Your task to perform on an android device: What is the news today? Image 0: 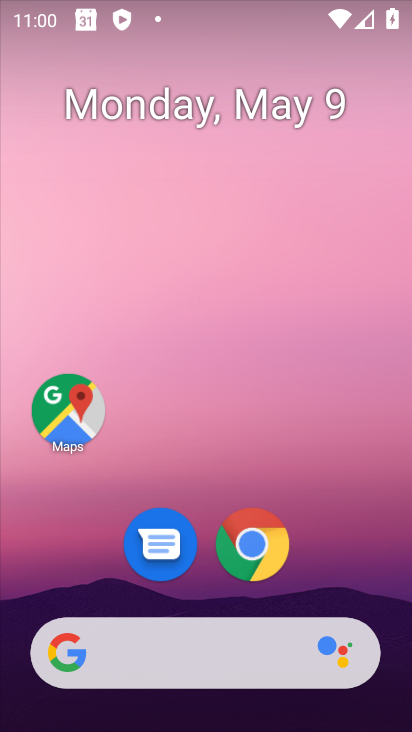
Step 0: press home button
Your task to perform on an android device: What is the news today? Image 1: 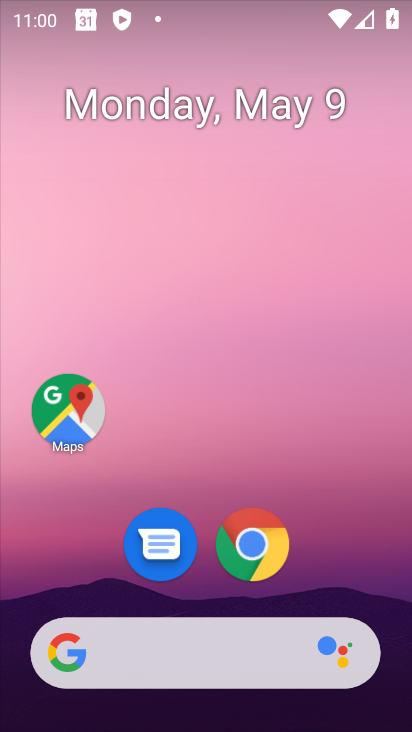
Step 1: click (132, 654)
Your task to perform on an android device: What is the news today? Image 2: 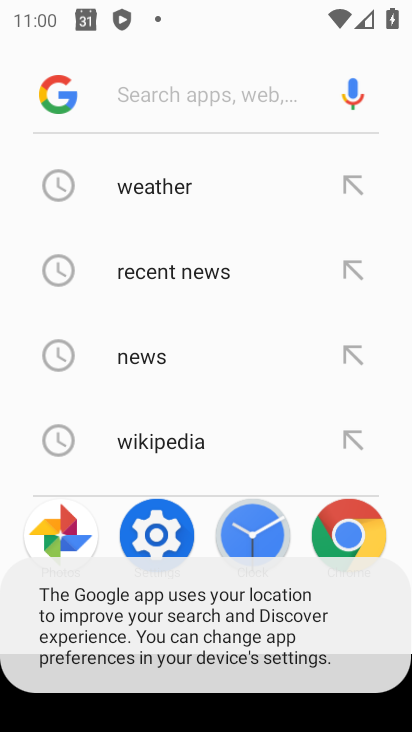
Step 2: click (153, 348)
Your task to perform on an android device: What is the news today? Image 3: 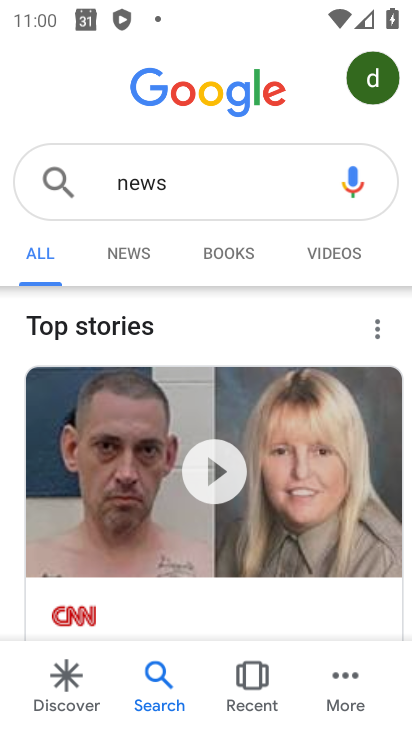
Step 3: task complete